Your task to perform on an android device: Open the calendar app, open the side menu, and click the "Day" option Image 0: 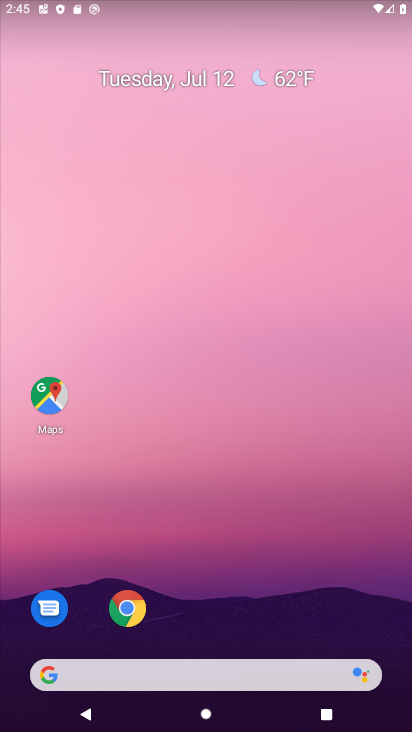
Step 0: drag from (116, 668) to (250, 117)
Your task to perform on an android device: Open the calendar app, open the side menu, and click the "Day" option Image 1: 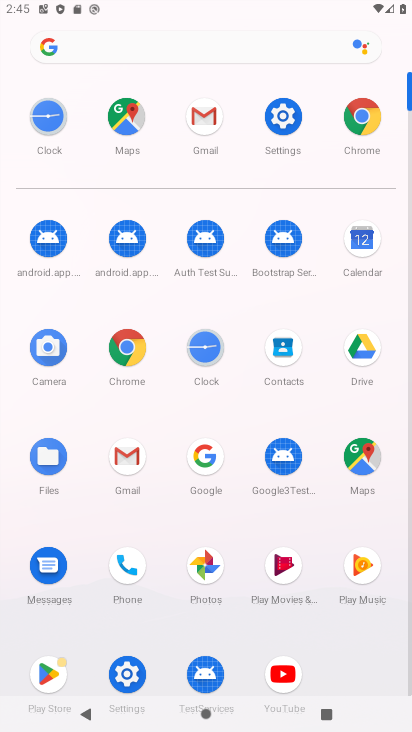
Step 1: click (358, 236)
Your task to perform on an android device: Open the calendar app, open the side menu, and click the "Day" option Image 2: 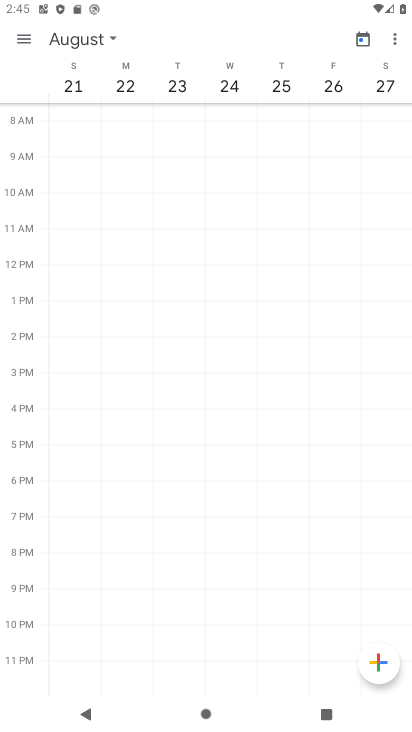
Step 2: click (30, 35)
Your task to perform on an android device: Open the calendar app, open the side menu, and click the "Day" option Image 3: 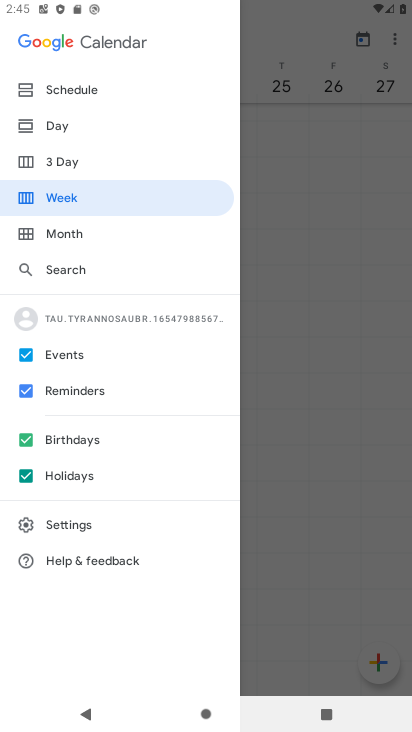
Step 3: click (74, 123)
Your task to perform on an android device: Open the calendar app, open the side menu, and click the "Day" option Image 4: 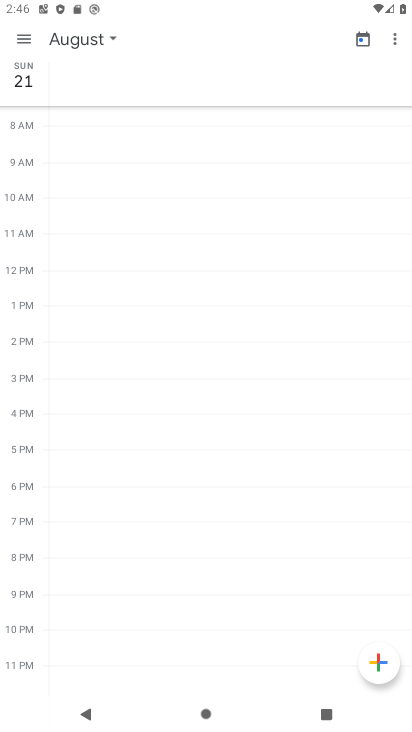
Step 4: task complete